Your task to perform on an android device: Go to Yahoo.com Image 0: 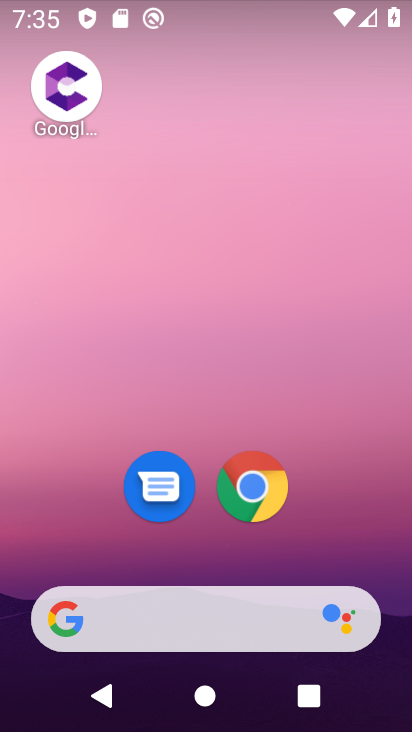
Step 0: drag from (231, 631) to (351, 14)
Your task to perform on an android device: Go to Yahoo.com Image 1: 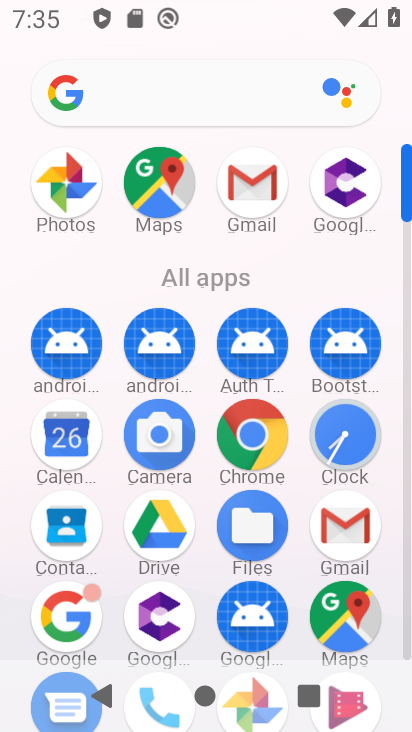
Step 1: drag from (246, 480) to (282, 15)
Your task to perform on an android device: Go to Yahoo.com Image 2: 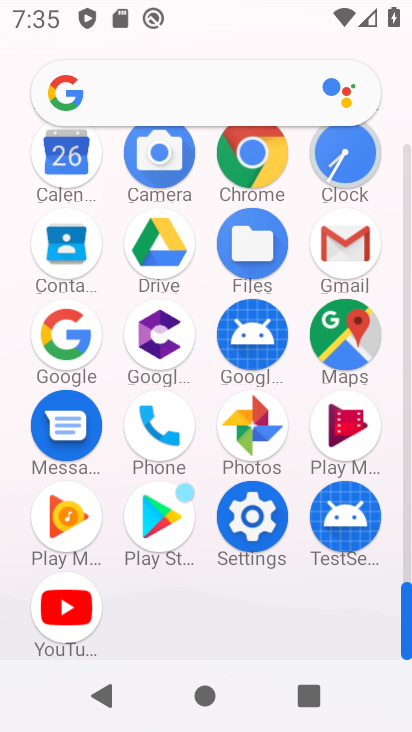
Step 2: click (268, 174)
Your task to perform on an android device: Go to Yahoo.com Image 3: 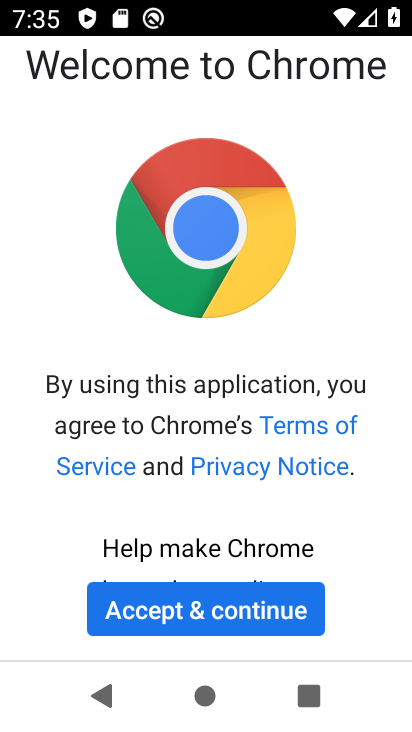
Step 3: click (227, 617)
Your task to perform on an android device: Go to Yahoo.com Image 4: 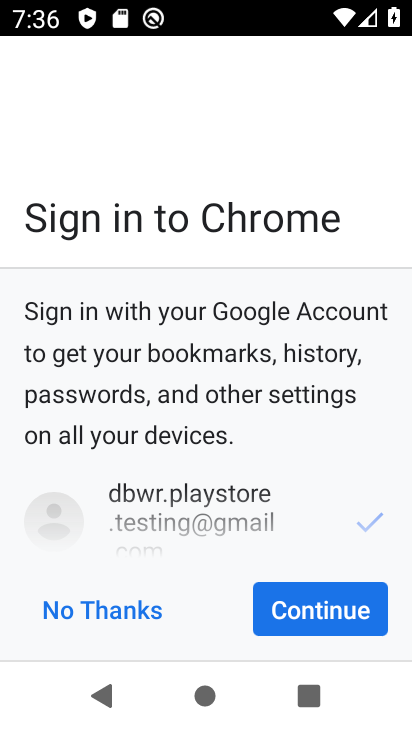
Step 4: click (321, 618)
Your task to perform on an android device: Go to Yahoo.com Image 5: 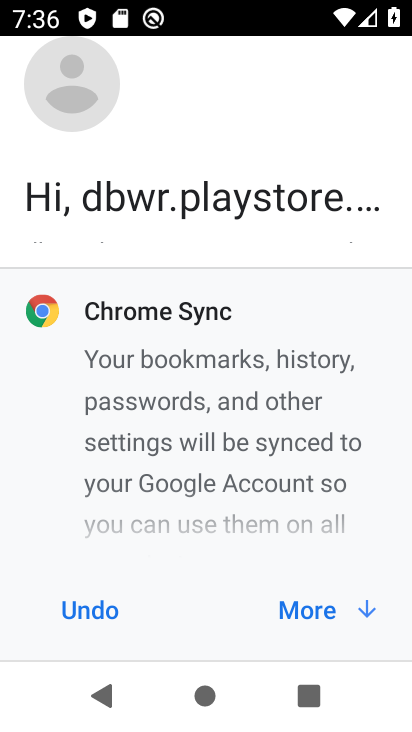
Step 5: click (356, 596)
Your task to perform on an android device: Go to Yahoo.com Image 6: 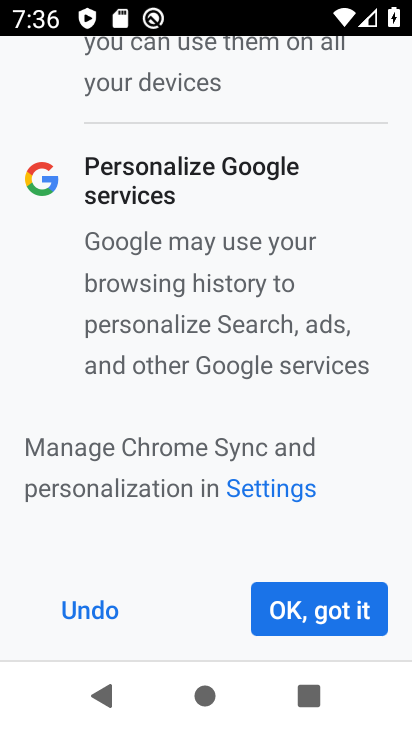
Step 6: click (353, 604)
Your task to perform on an android device: Go to Yahoo.com Image 7: 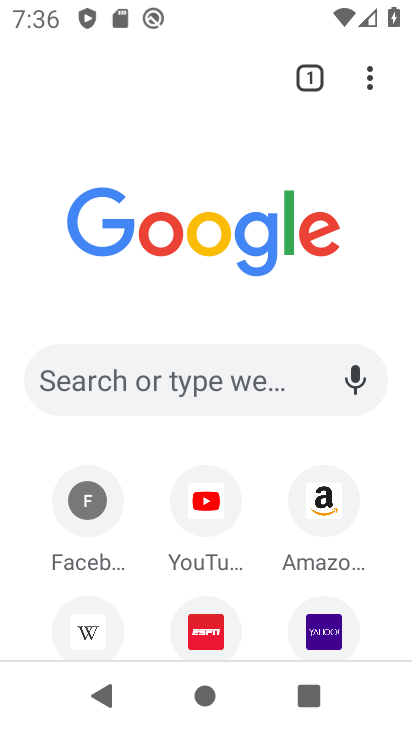
Step 7: drag from (303, 517) to (328, 232)
Your task to perform on an android device: Go to Yahoo.com Image 8: 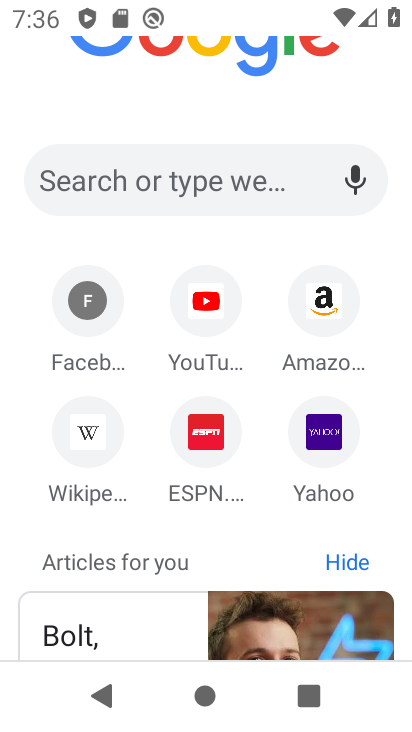
Step 8: click (350, 450)
Your task to perform on an android device: Go to Yahoo.com Image 9: 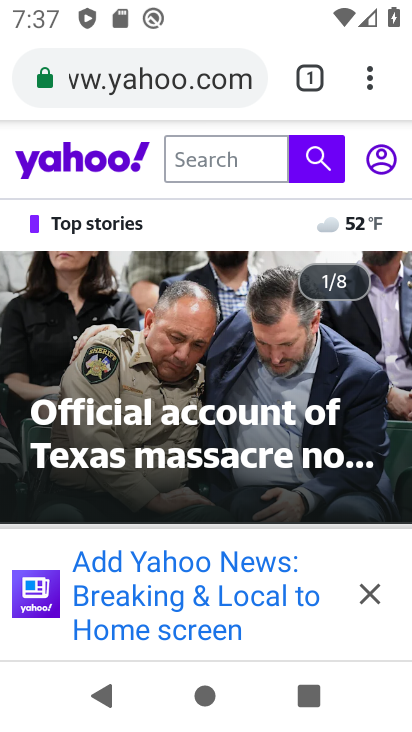
Step 9: task complete